Your task to perform on an android device: change the clock display to analog Image 0: 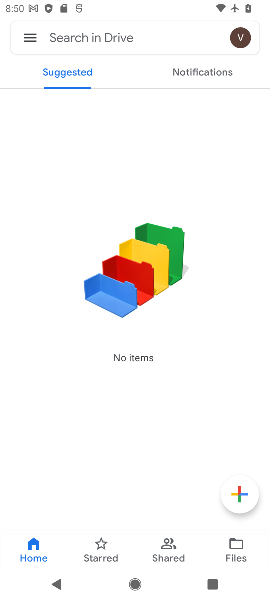
Step 0: press home button
Your task to perform on an android device: change the clock display to analog Image 1: 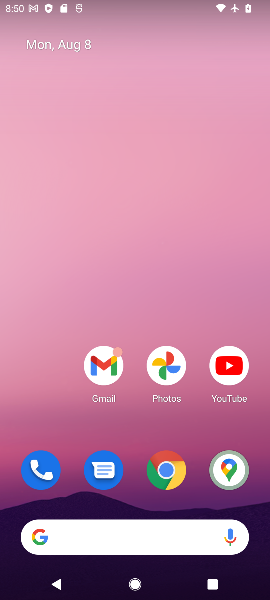
Step 1: drag from (126, 513) to (125, 147)
Your task to perform on an android device: change the clock display to analog Image 2: 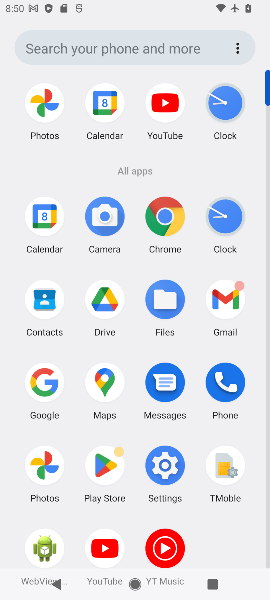
Step 2: click (222, 220)
Your task to perform on an android device: change the clock display to analog Image 3: 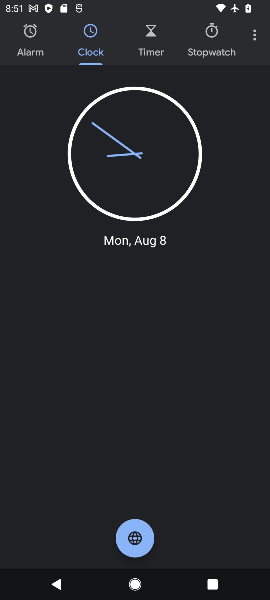
Step 3: click (252, 43)
Your task to perform on an android device: change the clock display to analog Image 4: 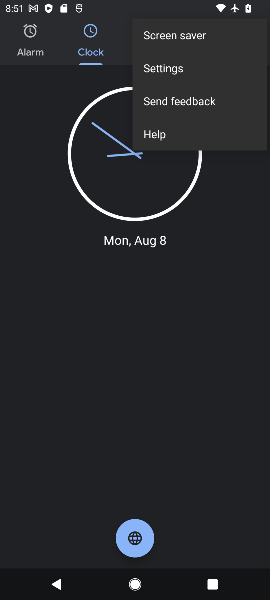
Step 4: click (175, 65)
Your task to perform on an android device: change the clock display to analog Image 5: 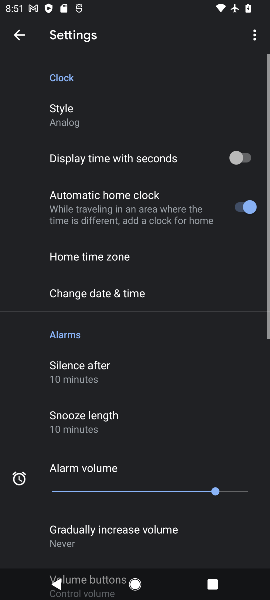
Step 5: click (75, 119)
Your task to perform on an android device: change the clock display to analog Image 6: 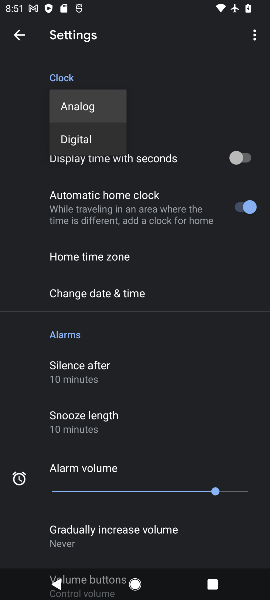
Step 6: click (78, 109)
Your task to perform on an android device: change the clock display to analog Image 7: 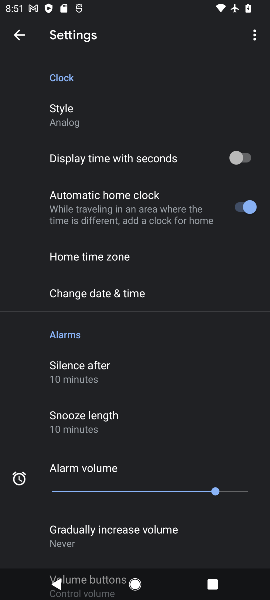
Step 7: task complete